Your task to perform on an android device: change alarm snooze length Image 0: 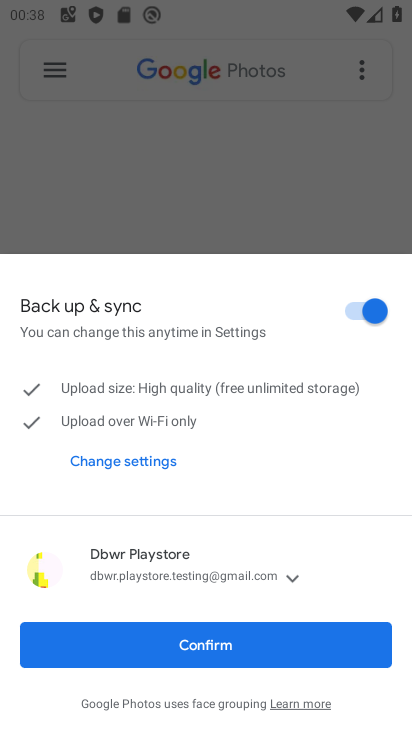
Step 0: press home button
Your task to perform on an android device: change alarm snooze length Image 1: 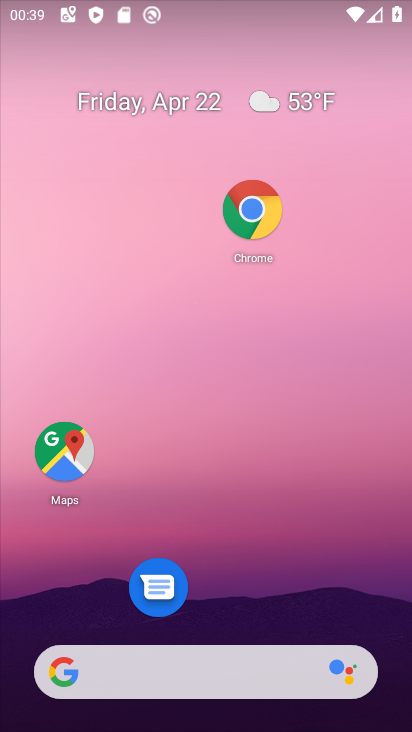
Step 1: drag from (267, 548) to (274, 52)
Your task to perform on an android device: change alarm snooze length Image 2: 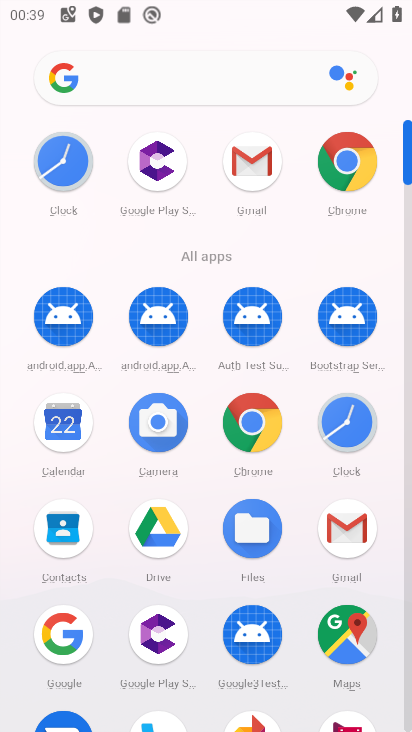
Step 2: click (52, 158)
Your task to perform on an android device: change alarm snooze length Image 3: 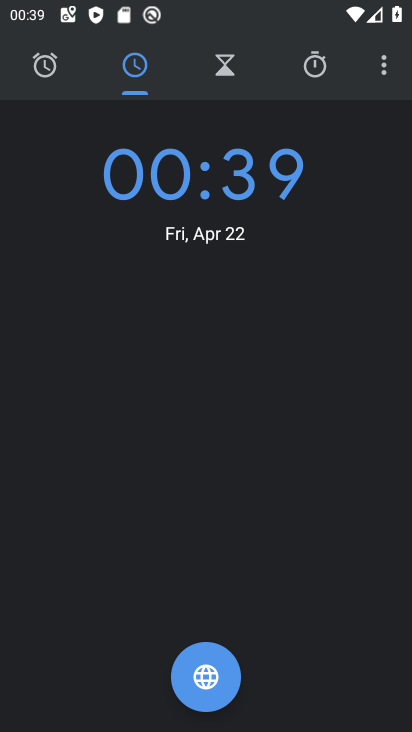
Step 3: click (385, 72)
Your task to perform on an android device: change alarm snooze length Image 4: 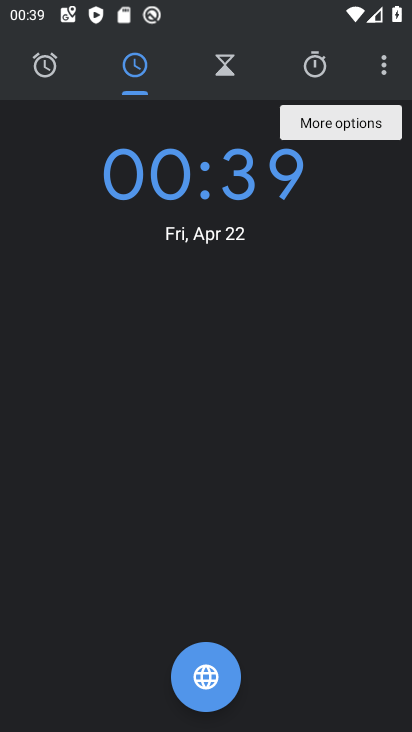
Step 4: click (385, 72)
Your task to perform on an android device: change alarm snooze length Image 5: 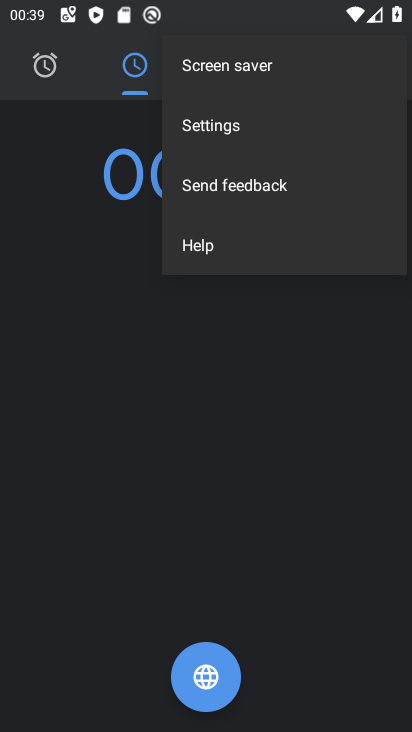
Step 5: click (200, 131)
Your task to perform on an android device: change alarm snooze length Image 6: 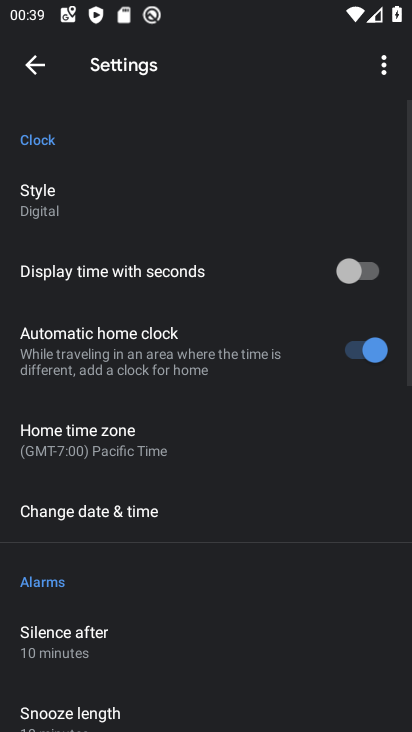
Step 6: drag from (281, 589) to (233, 202)
Your task to perform on an android device: change alarm snooze length Image 7: 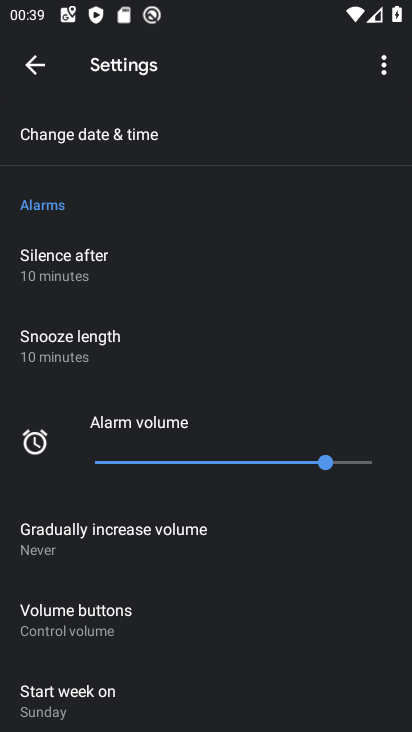
Step 7: click (89, 345)
Your task to perform on an android device: change alarm snooze length Image 8: 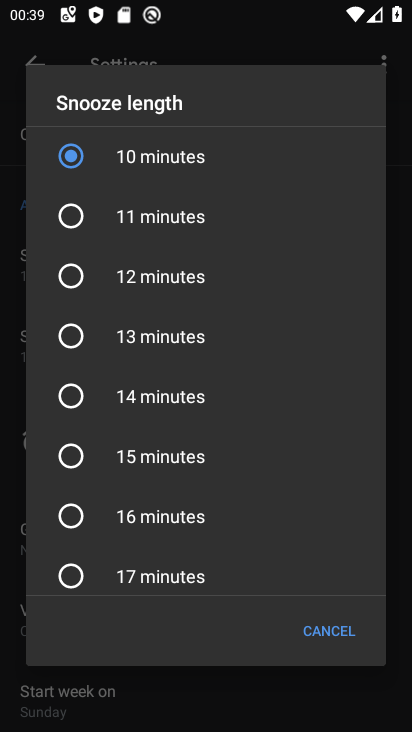
Step 8: click (163, 284)
Your task to perform on an android device: change alarm snooze length Image 9: 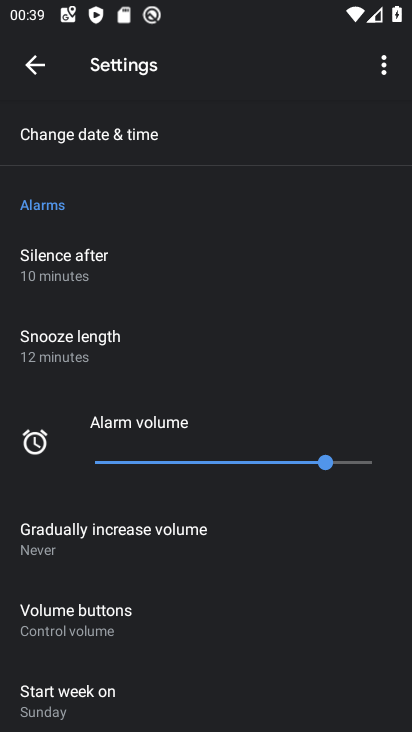
Step 9: task complete